Your task to perform on an android device: open sync settings in chrome Image 0: 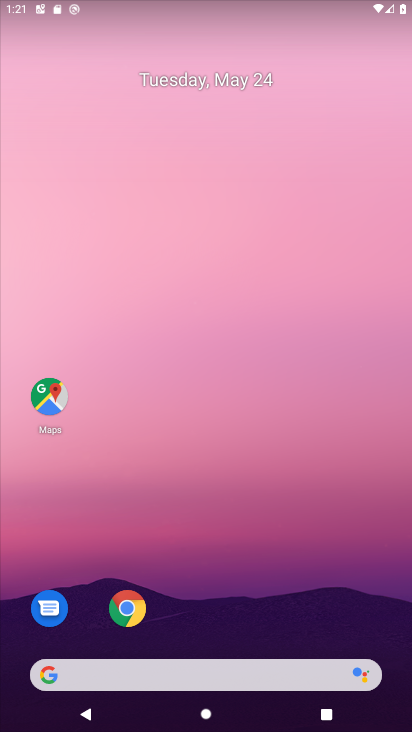
Step 0: click (133, 618)
Your task to perform on an android device: open sync settings in chrome Image 1: 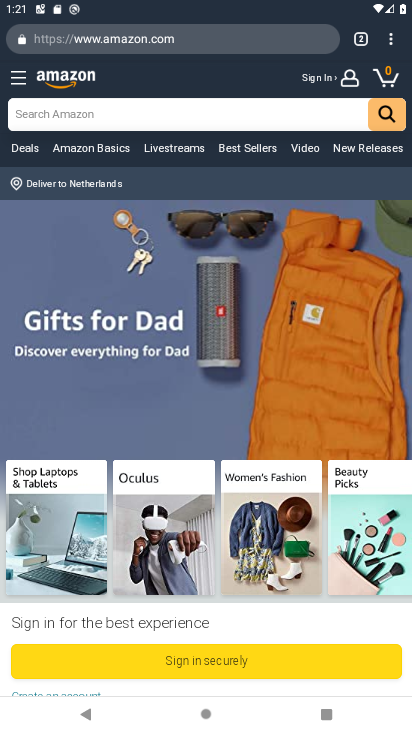
Step 1: click (396, 42)
Your task to perform on an android device: open sync settings in chrome Image 2: 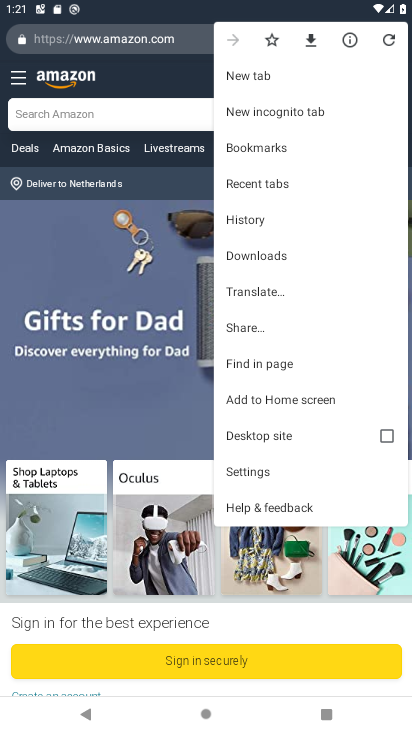
Step 2: click (277, 469)
Your task to perform on an android device: open sync settings in chrome Image 3: 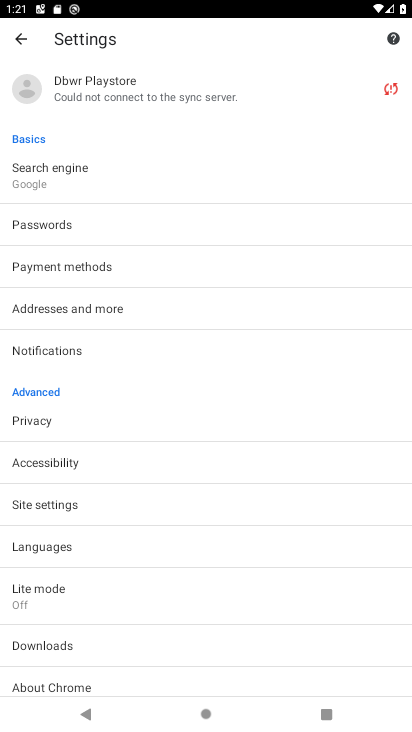
Step 3: click (196, 95)
Your task to perform on an android device: open sync settings in chrome Image 4: 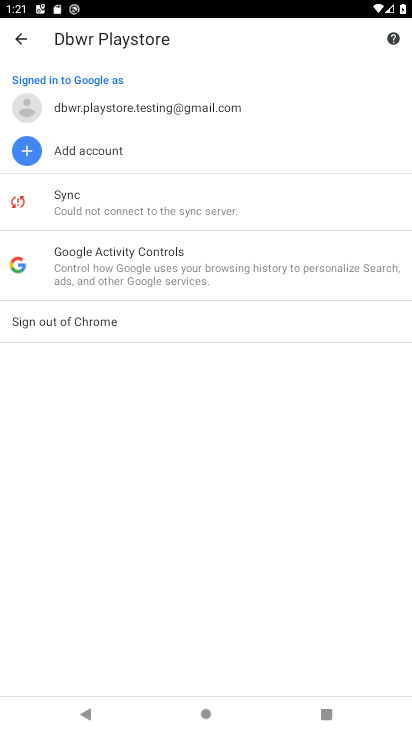
Step 4: click (171, 205)
Your task to perform on an android device: open sync settings in chrome Image 5: 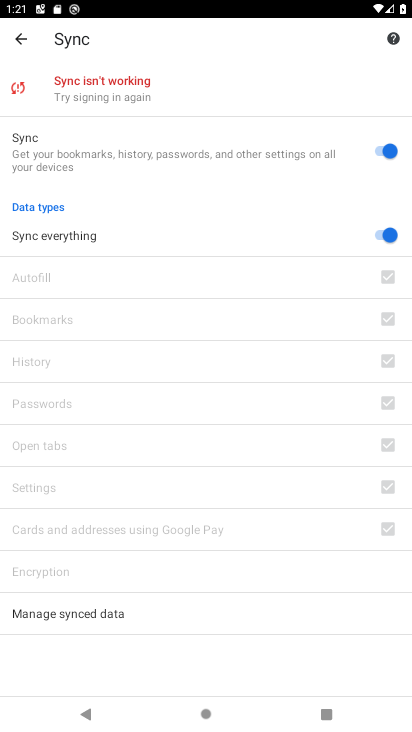
Step 5: task complete